Your task to perform on an android device: Show me popular games on the Play Store Image 0: 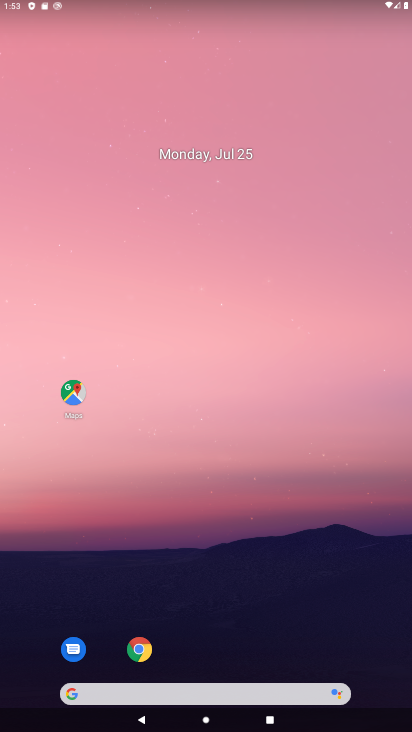
Step 0: drag from (383, 676) to (300, 246)
Your task to perform on an android device: Show me popular games on the Play Store Image 1: 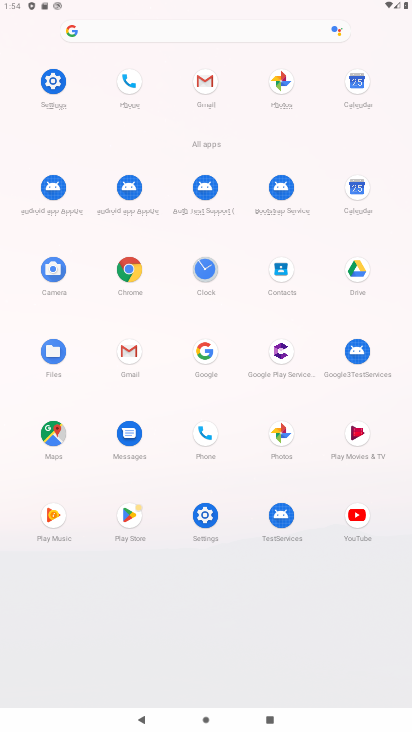
Step 1: click (128, 513)
Your task to perform on an android device: Show me popular games on the Play Store Image 2: 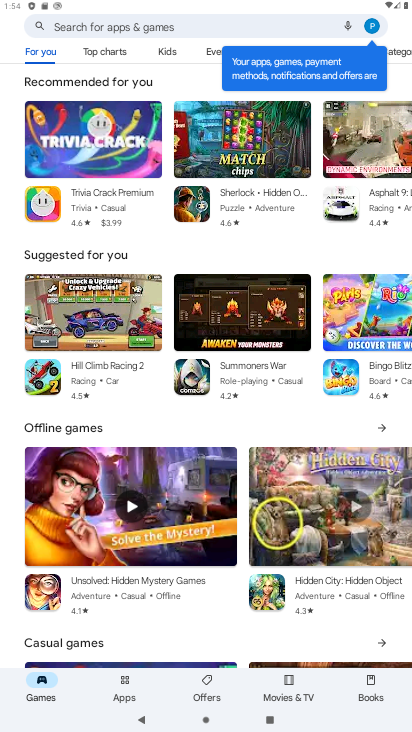
Step 2: drag from (130, 236) to (154, 285)
Your task to perform on an android device: Show me popular games on the Play Store Image 3: 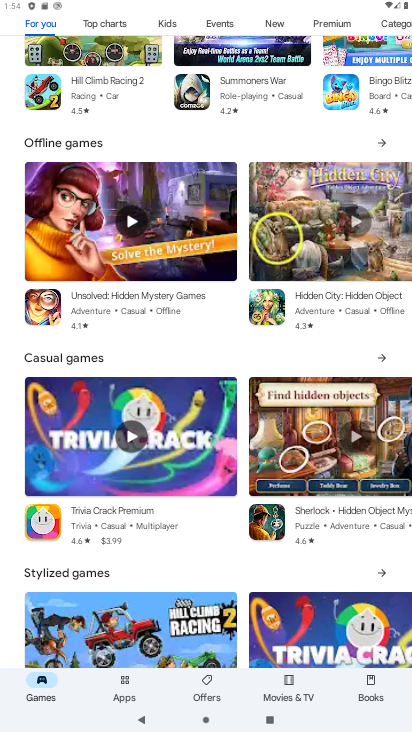
Step 3: drag from (185, 565) to (177, 255)
Your task to perform on an android device: Show me popular games on the Play Store Image 4: 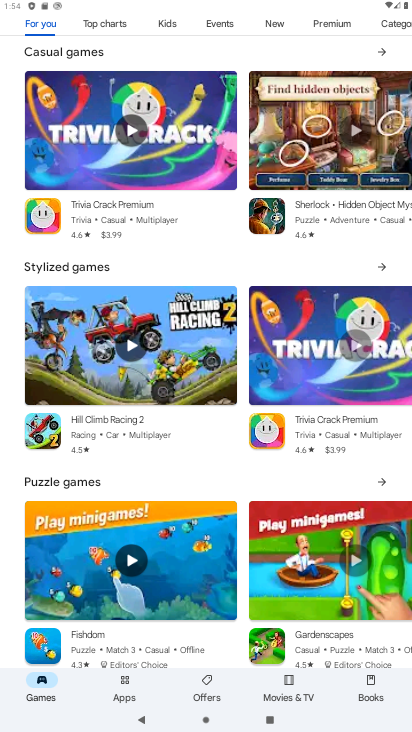
Step 4: drag from (227, 486) to (185, 95)
Your task to perform on an android device: Show me popular games on the Play Store Image 5: 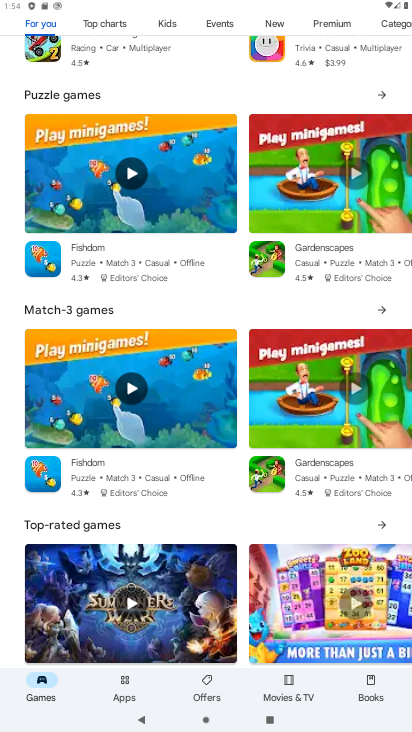
Step 5: drag from (243, 533) to (199, 112)
Your task to perform on an android device: Show me popular games on the Play Store Image 6: 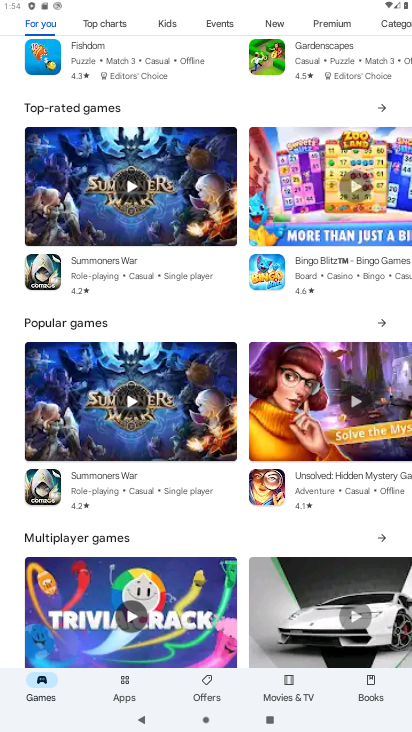
Step 6: drag from (242, 546) to (219, 387)
Your task to perform on an android device: Show me popular games on the Play Store Image 7: 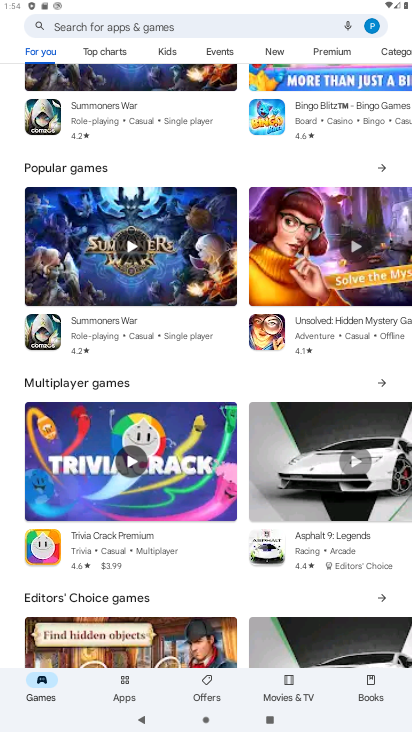
Step 7: click (383, 165)
Your task to perform on an android device: Show me popular games on the Play Store Image 8: 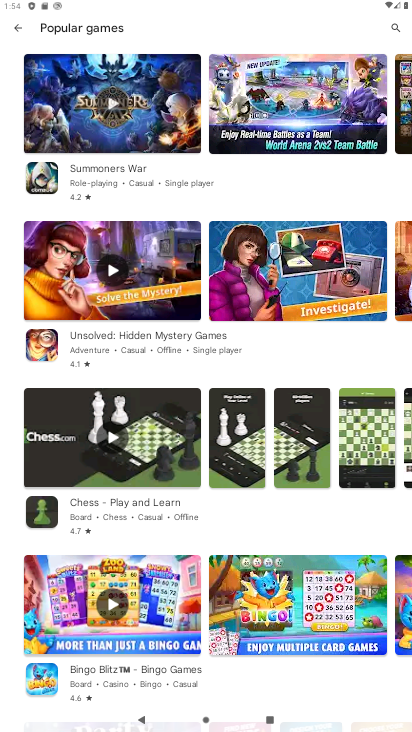
Step 8: task complete